Your task to perform on an android device: Show the shopping cart on costco.com. Image 0: 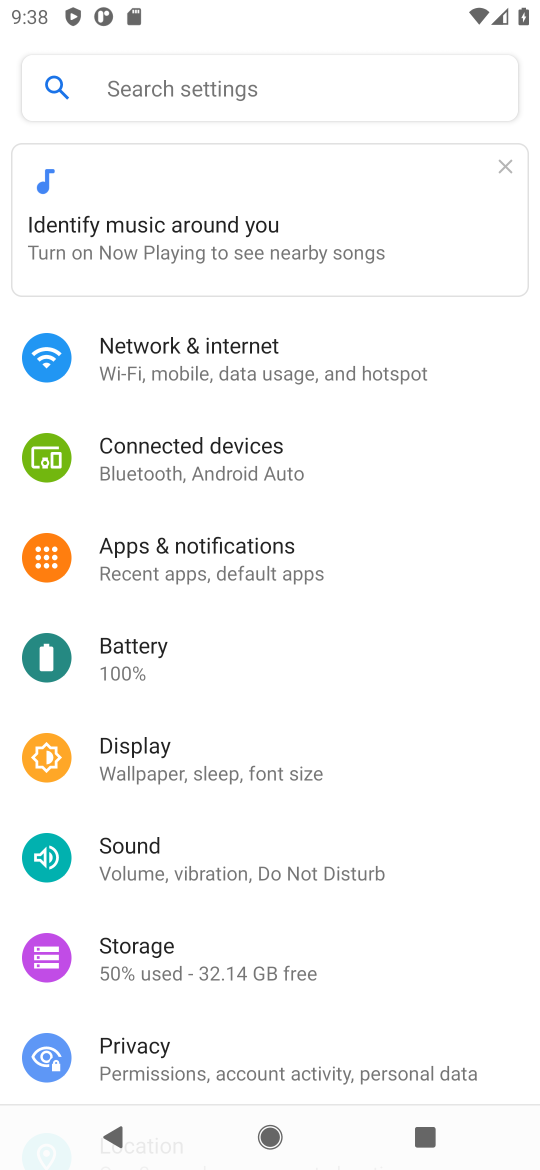
Step 0: press home button
Your task to perform on an android device: Show the shopping cart on costco.com. Image 1: 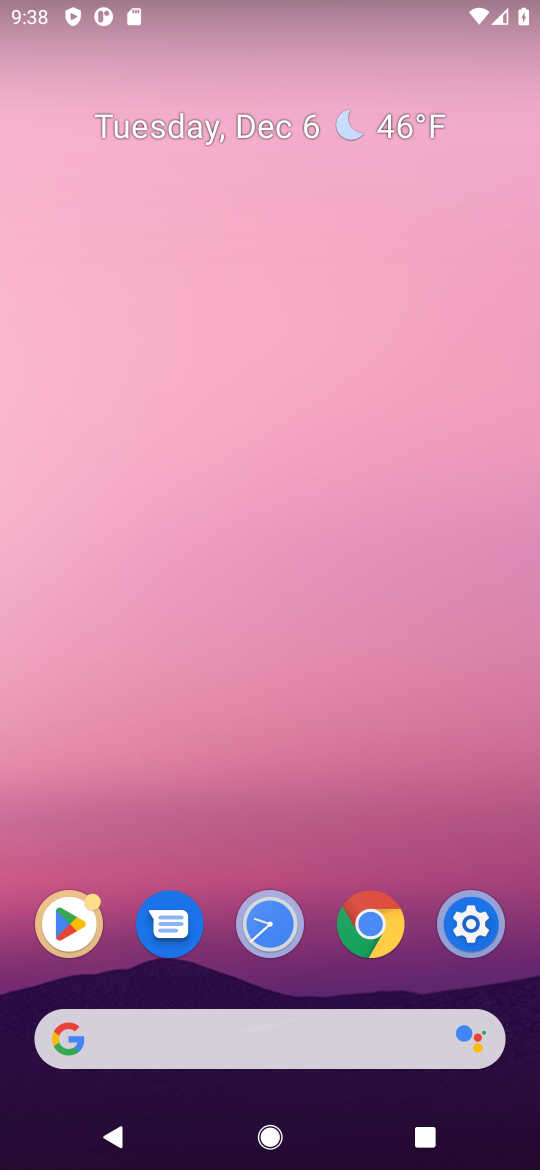
Step 1: click (305, 1046)
Your task to perform on an android device: Show the shopping cart on costco.com. Image 2: 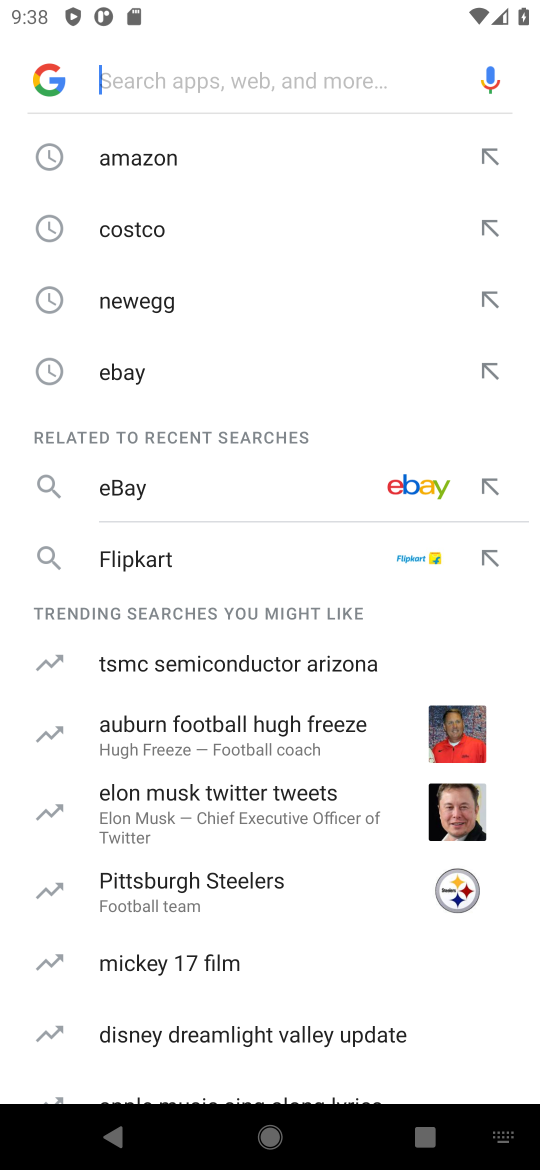
Step 2: type "costco.com"
Your task to perform on an android device: Show the shopping cart on costco.com. Image 3: 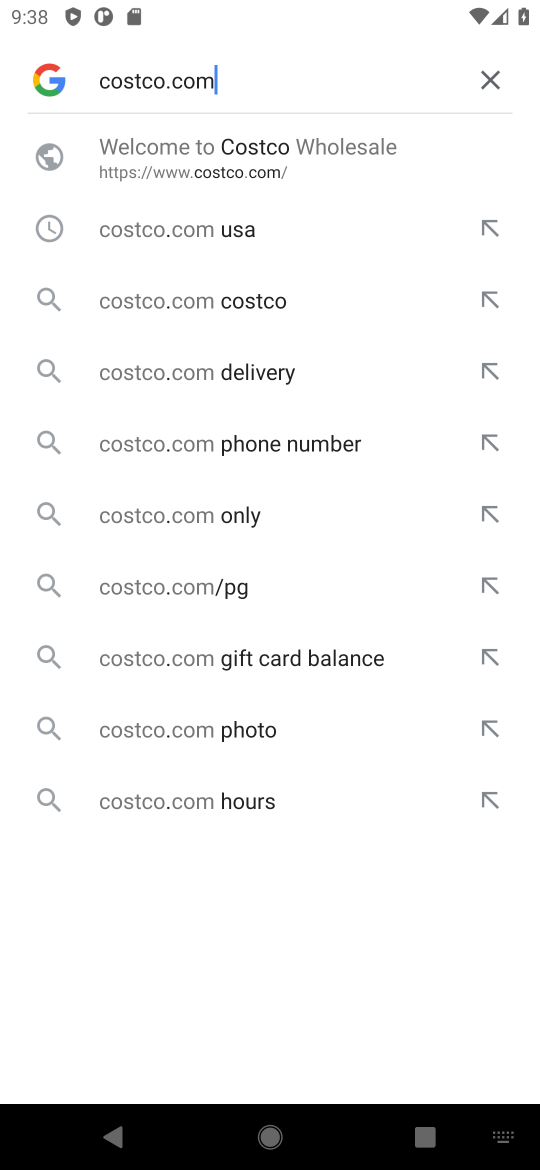
Step 3: click (247, 159)
Your task to perform on an android device: Show the shopping cart on costco.com. Image 4: 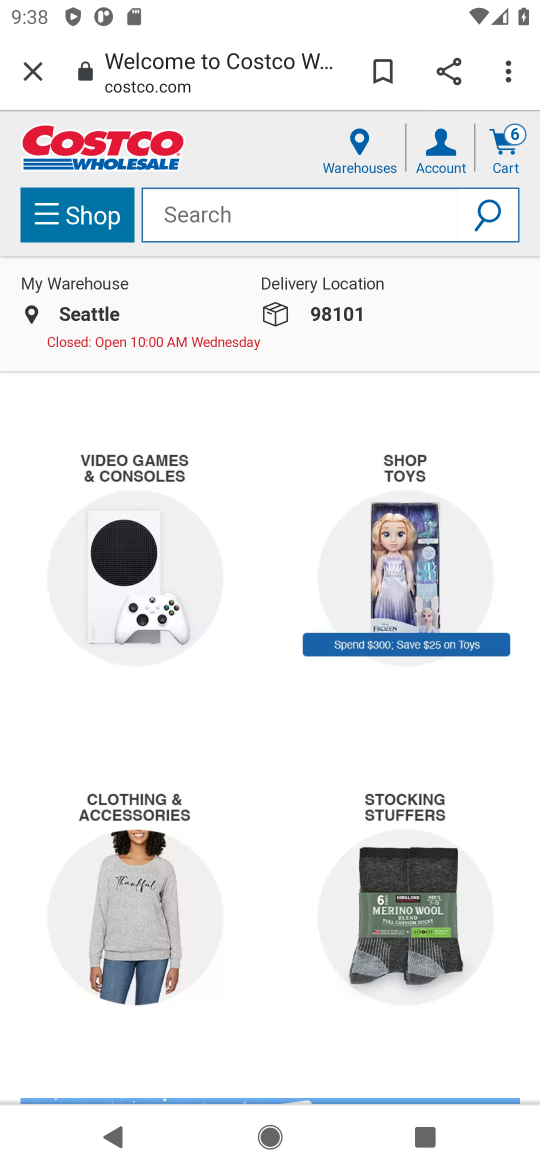
Step 4: click (192, 225)
Your task to perform on an android device: Show the shopping cart on costco.com. Image 5: 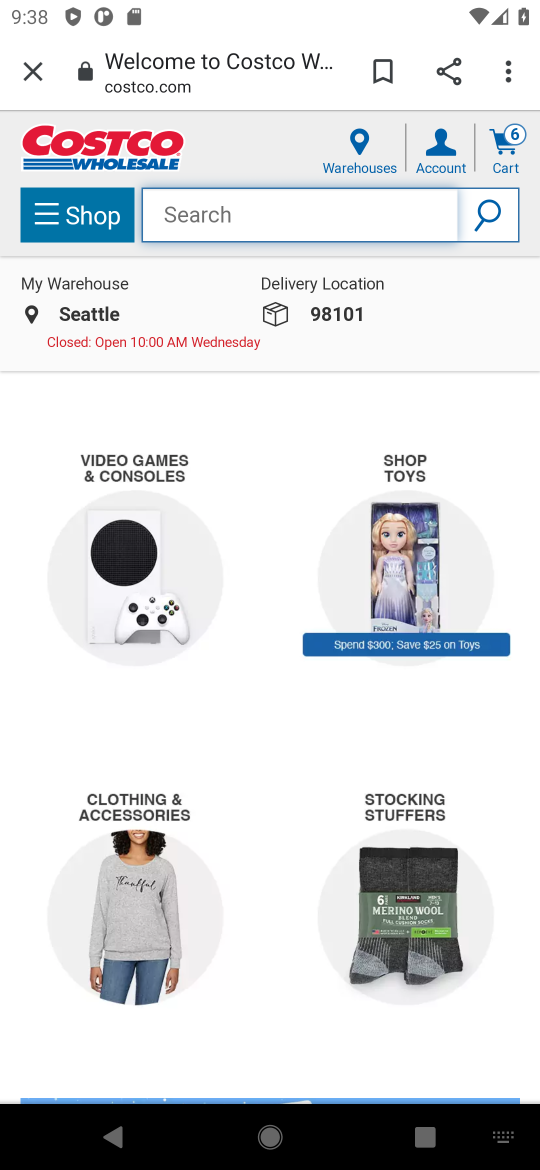
Step 5: click (501, 148)
Your task to perform on an android device: Show the shopping cart on costco.com. Image 6: 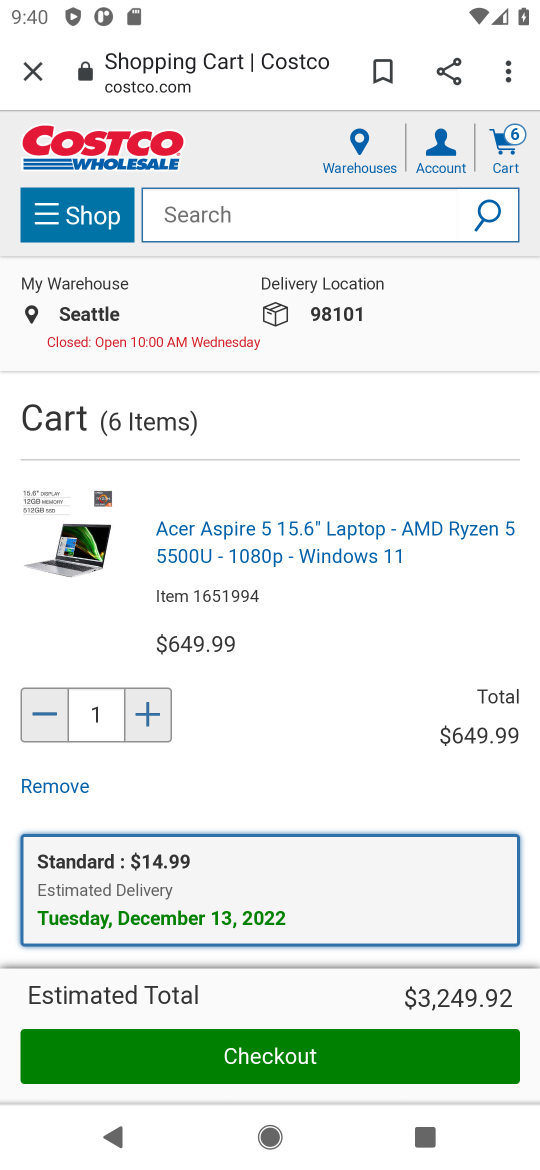
Step 6: task complete